Your task to perform on an android device: change timer sound Image 0: 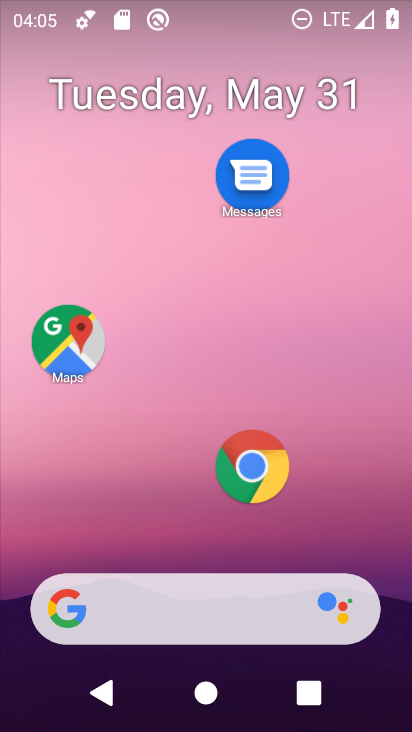
Step 0: drag from (169, 387) to (213, 145)
Your task to perform on an android device: change timer sound Image 1: 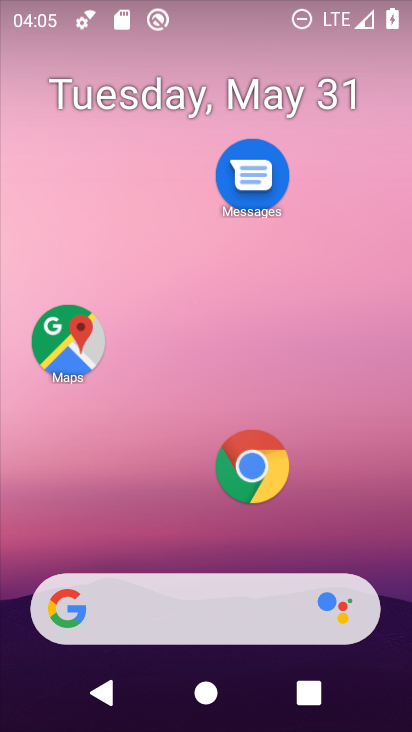
Step 1: drag from (149, 546) to (233, 89)
Your task to perform on an android device: change timer sound Image 2: 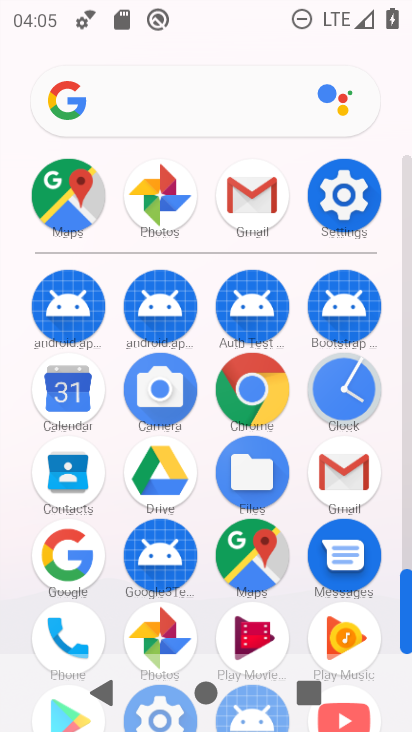
Step 2: click (330, 183)
Your task to perform on an android device: change timer sound Image 3: 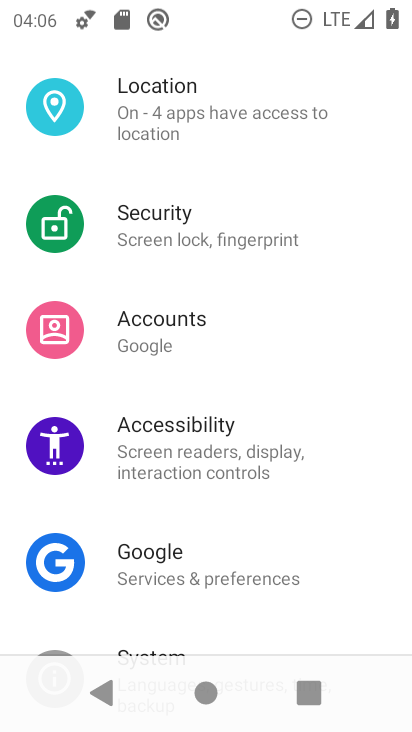
Step 3: press back button
Your task to perform on an android device: change timer sound Image 4: 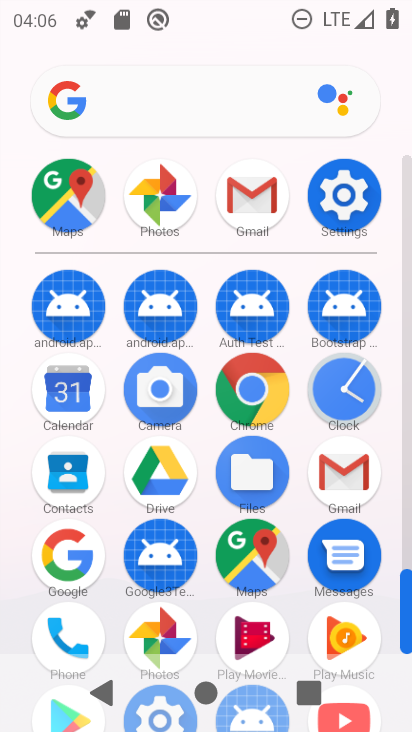
Step 4: click (347, 371)
Your task to perform on an android device: change timer sound Image 5: 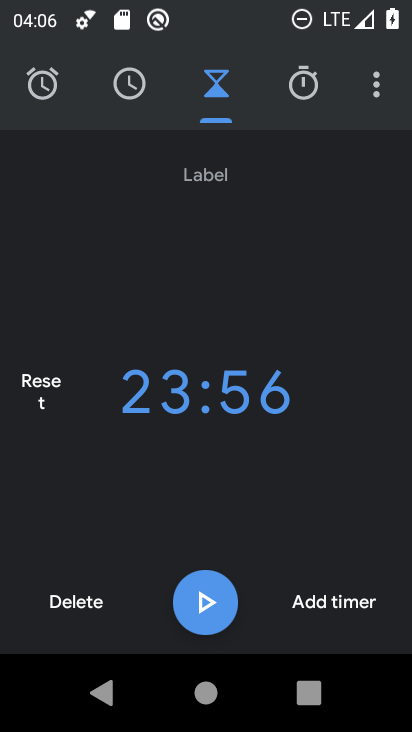
Step 5: click (375, 80)
Your task to perform on an android device: change timer sound Image 6: 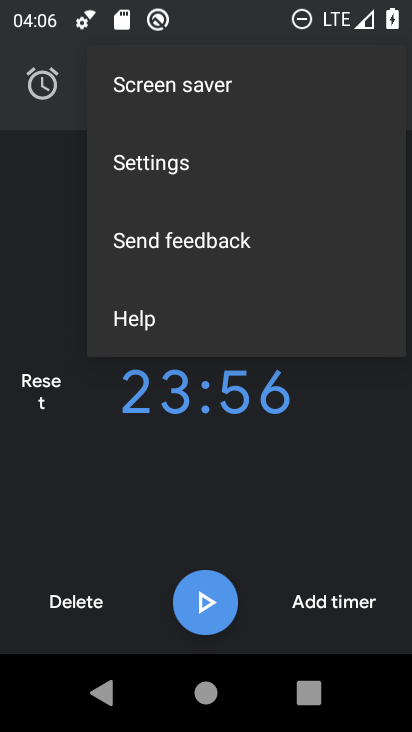
Step 6: click (197, 169)
Your task to perform on an android device: change timer sound Image 7: 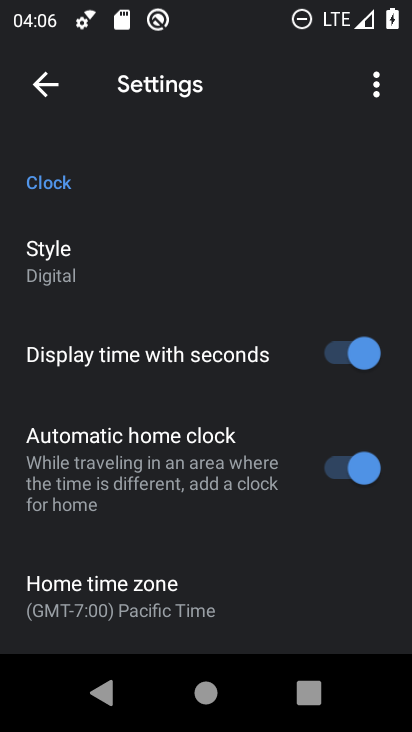
Step 7: drag from (163, 594) to (232, 112)
Your task to perform on an android device: change timer sound Image 8: 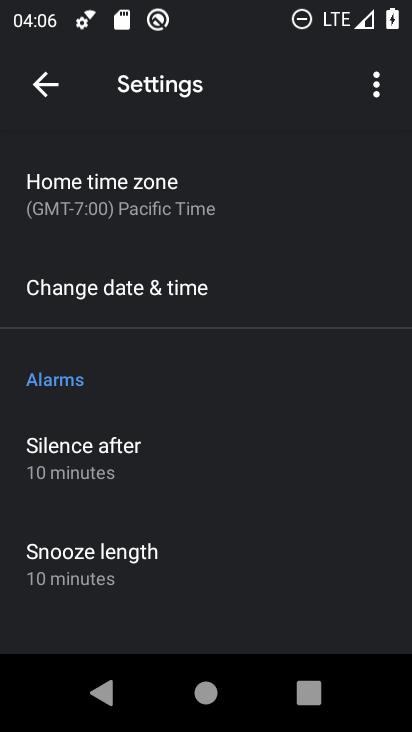
Step 8: drag from (155, 570) to (243, 138)
Your task to perform on an android device: change timer sound Image 9: 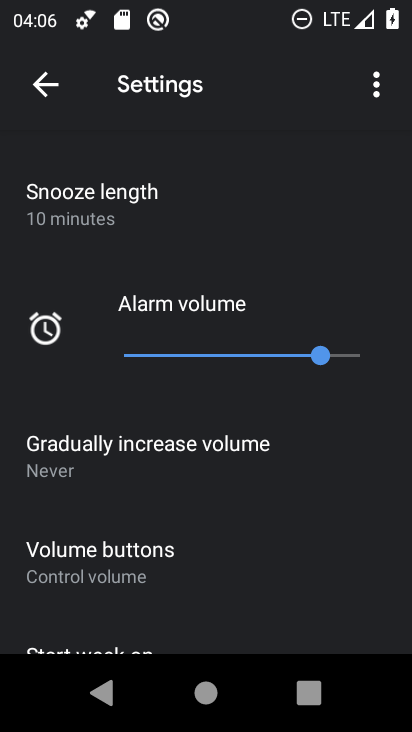
Step 9: drag from (195, 541) to (245, 179)
Your task to perform on an android device: change timer sound Image 10: 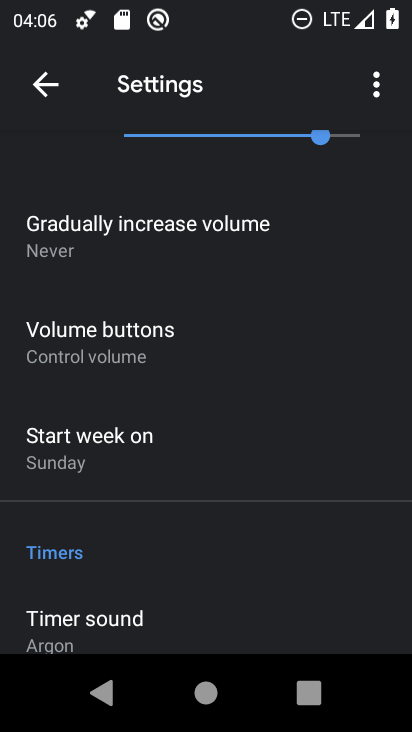
Step 10: click (104, 622)
Your task to perform on an android device: change timer sound Image 11: 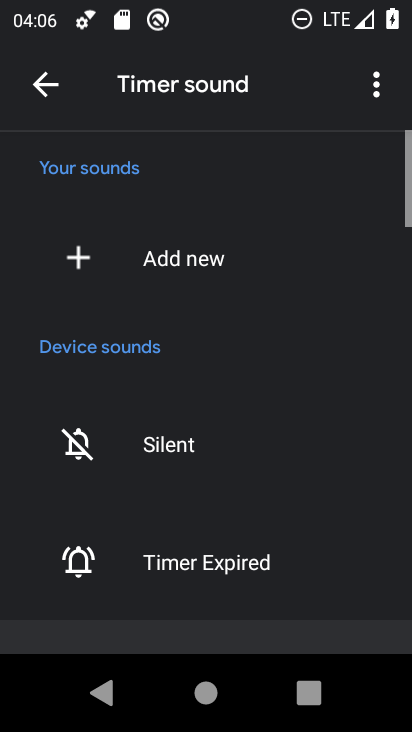
Step 11: drag from (166, 577) to (226, 169)
Your task to perform on an android device: change timer sound Image 12: 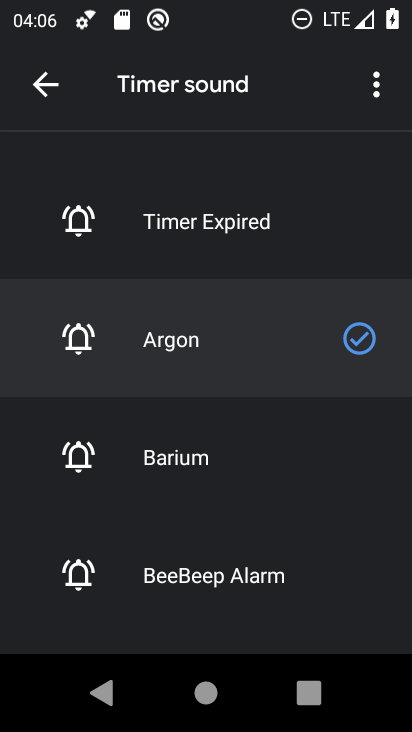
Step 12: click (181, 447)
Your task to perform on an android device: change timer sound Image 13: 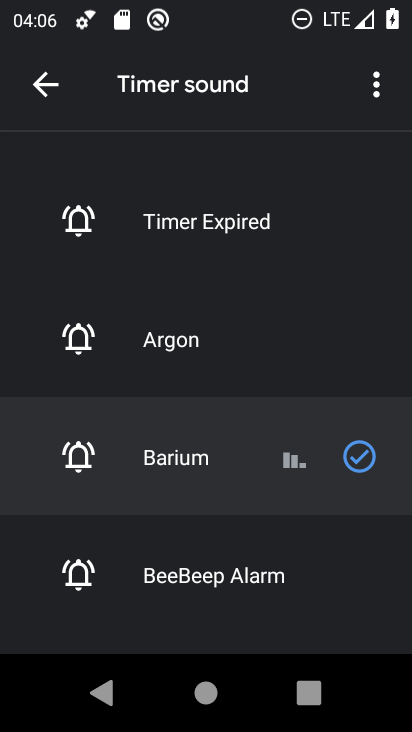
Step 13: task complete